Your task to perform on an android device: Show the shopping cart on target.com. Image 0: 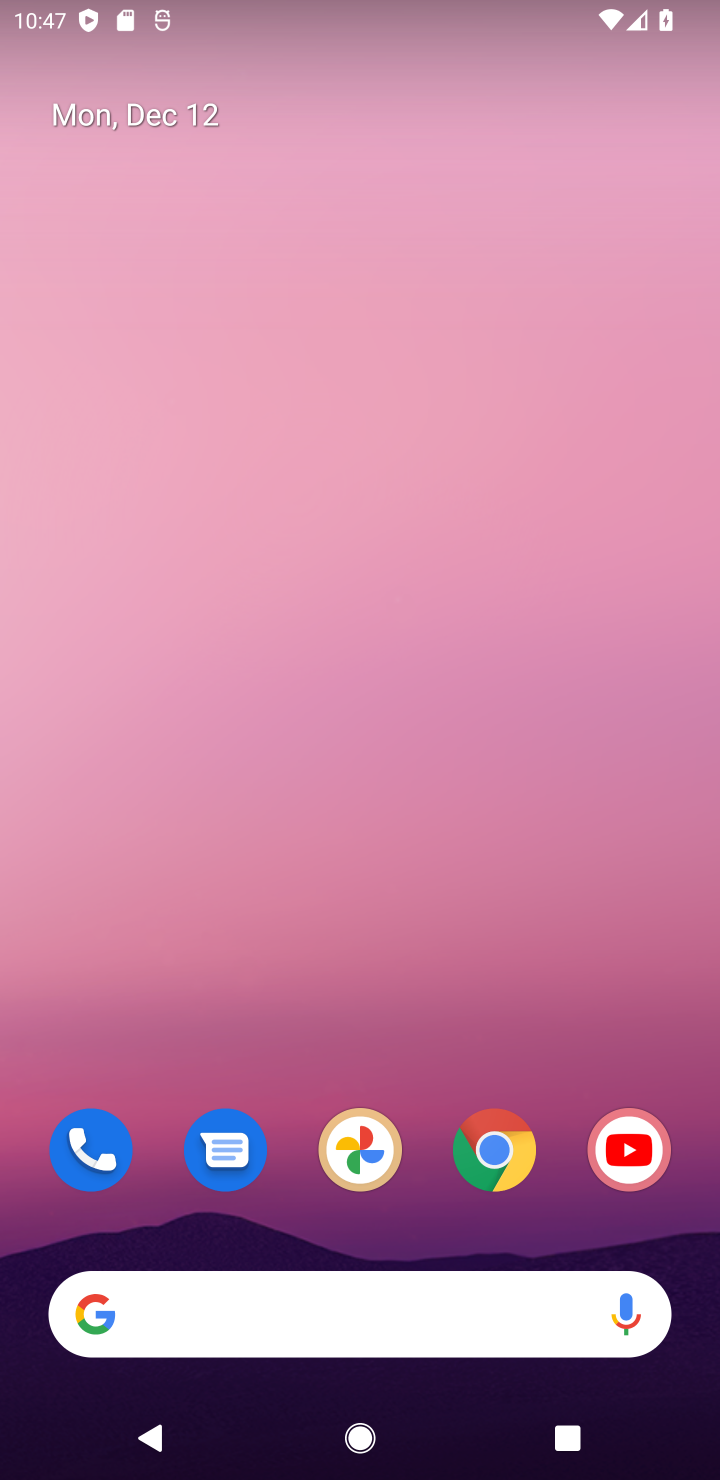
Step 0: click (504, 1156)
Your task to perform on an android device: Show the shopping cart on target.com. Image 1: 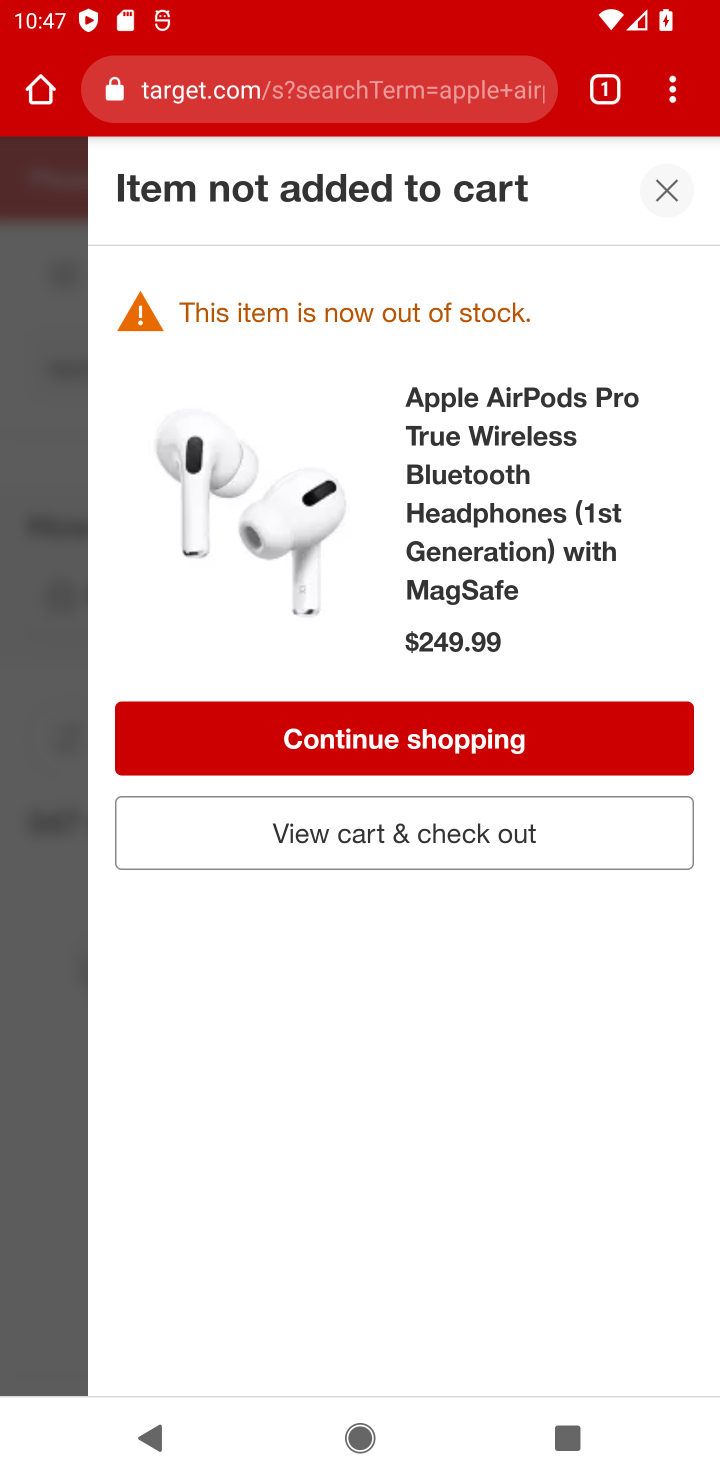
Step 1: click (667, 193)
Your task to perform on an android device: Show the shopping cart on target.com. Image 2: 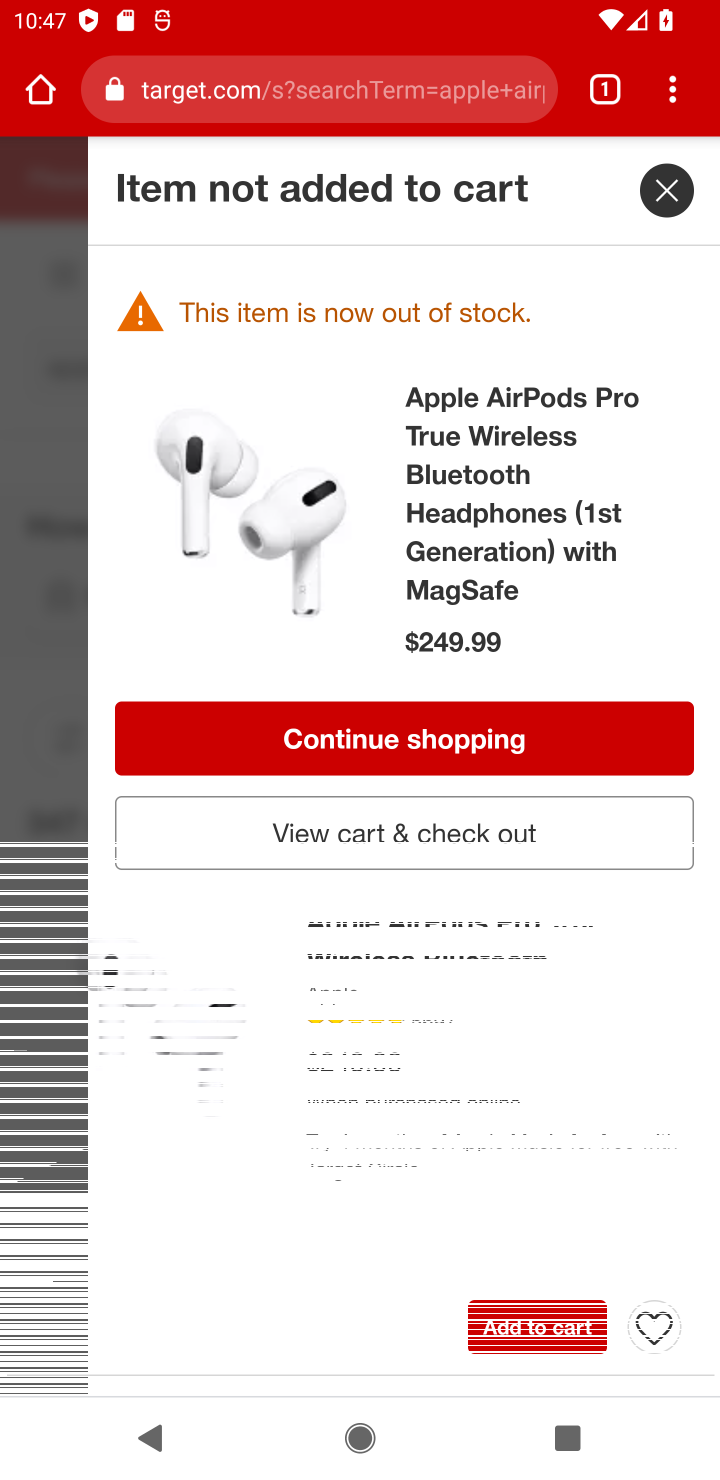
Step 2: click (669, 204)
Your task to perform on an android device: Show the shopping cart on target.com. Image 3: 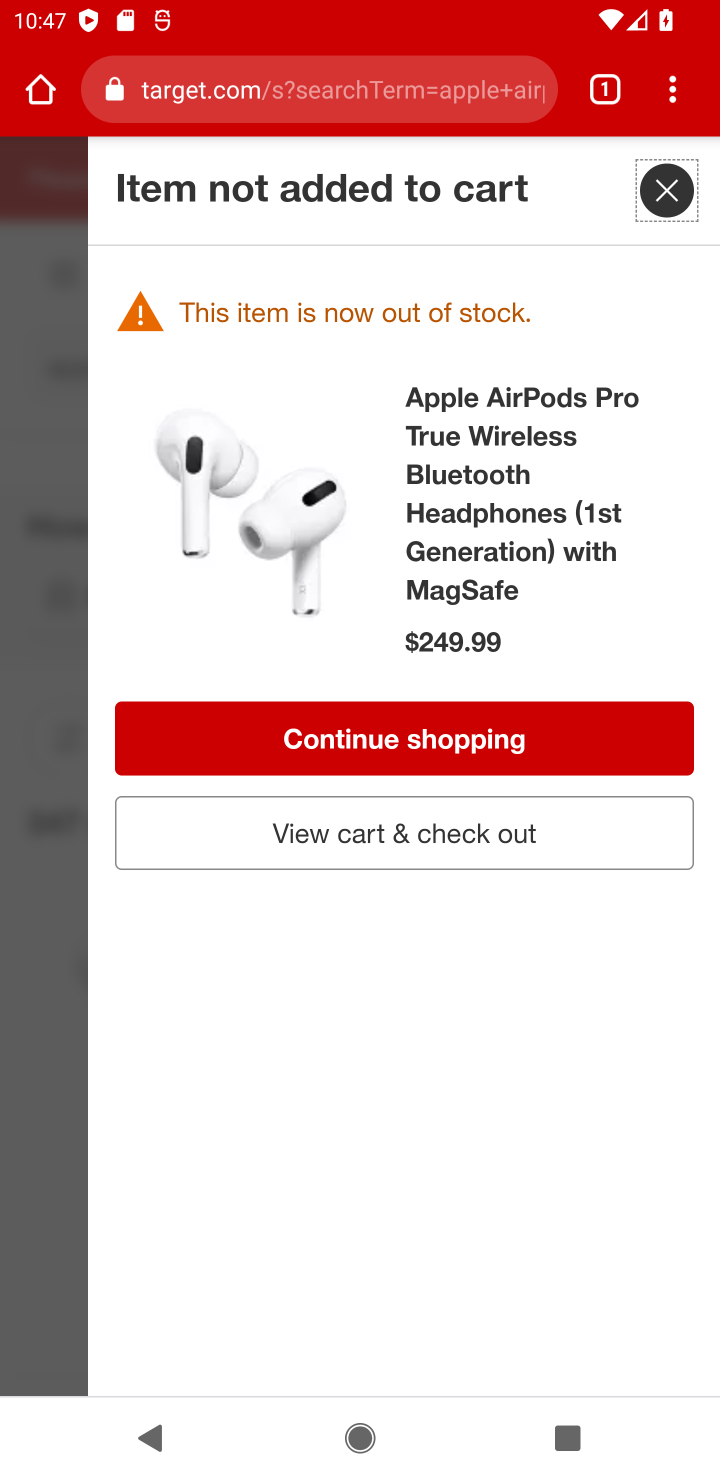
Step 3: task complete